Your task to perform on an android device: open app "Lyft - Rideshare, Bikes, Scooters & Transit" (install if not already installed) Image 0: 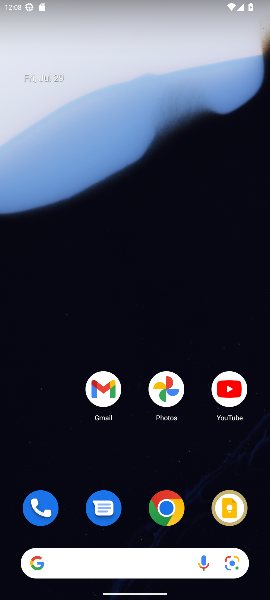
Step 0: drag from (152, 551) to (160, 117)
Your task to perform on an android device: open app "Lyft - Rideshare, Bikes, Scooters & Transit" (install if not already installed) Image 1: 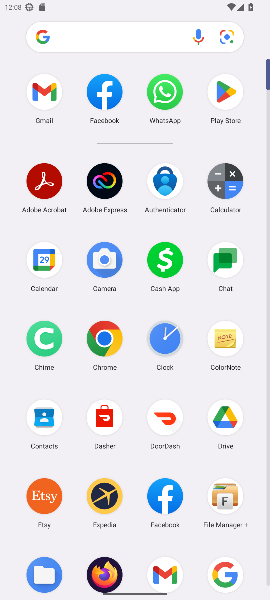
Step 1: click (225, 81)
Your task to perform on an android device: open app "Lyft - Rideshare, Bikes, Scooters & Transit" (install if not already installed) Image 2: 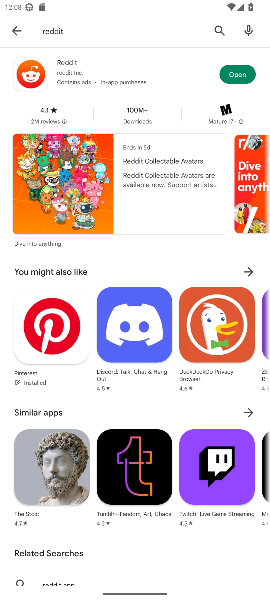
Step 2: click (220, 30)
Your task to perform on an android device: open app "Lyft - Rideshare, Bikes, Scooters & Transit" (install if not already installed) Image 3: 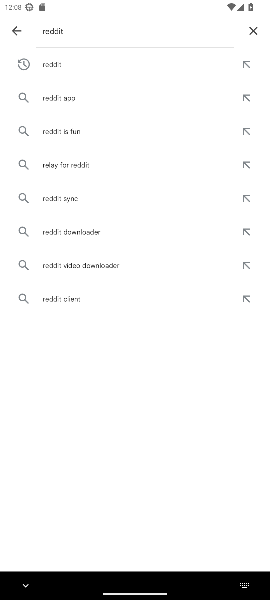
Step 3: click (255, 28)
Your task to perform on an android device: open app "Lyft - Rideshare, Bikes, Scooters & Transit" (install if not already installed) Image 4: 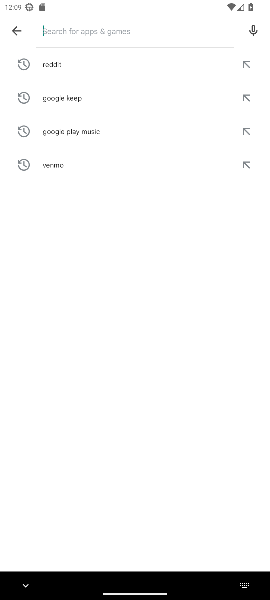
Step 4: type "lyft - rideshare, bikes, scooters & transit"
Your task to perform on an android device: open app "Lyft - Rideshare, Bikes, Scooters & Transit" (install if not already installed) Image 5: 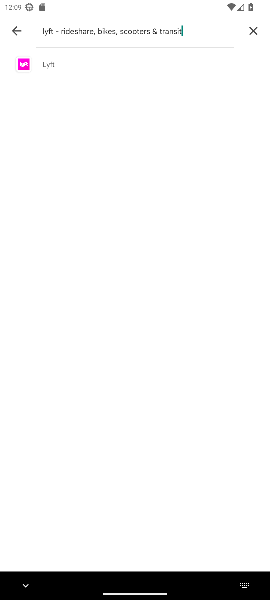
Step 5: click (28, 57)
Your task to perform on an android device: open app "Lyft - Rideshare, Bikes, Scooters & Transit" (install if not already installed) Image 6: 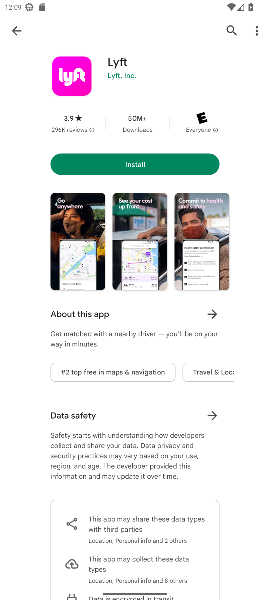
Step 6: click (120, 160)
Your task to perform on an android device: open app "Lyft - Rideshare, Bikes, Scooters & Transit" (install if not already installed) Image 7: 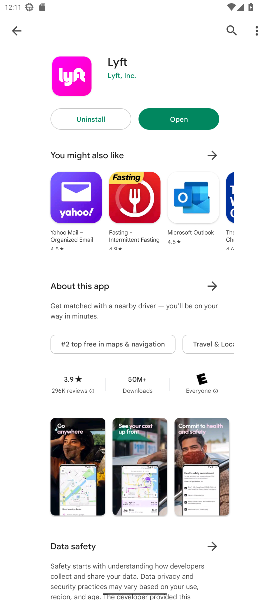
Step 7: click (198, 126)
Your task to perform on an android device: open app "Lyft - Rideshare, Bikes, Scooters & Transit" (install if not already installed) Image 8: 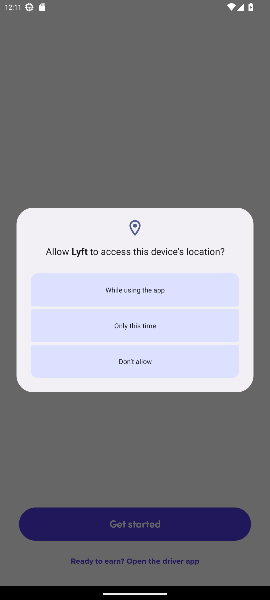
Step 8: task complete